Your task to perform on an android device: all mails in gmail Image 0: 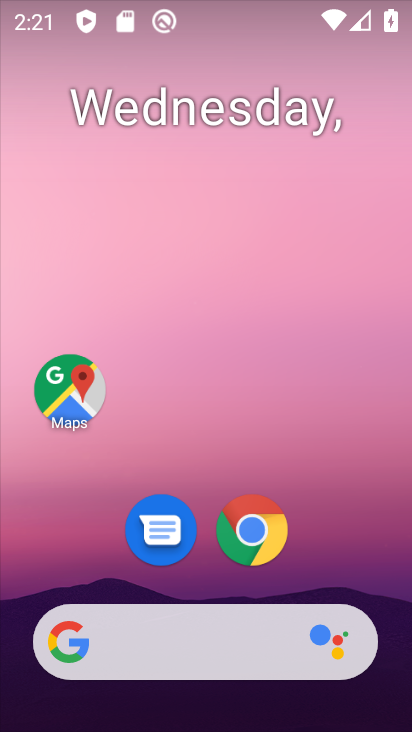
Step 0: drag from (178, 579) to (197, 41)
Your task to perform on an android device: all mails in gmail Image 1: 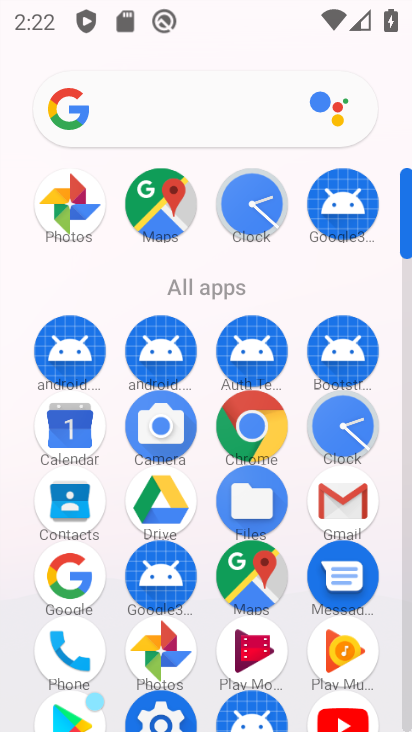
Step 1: click (333, 482)
Your task to perform on an android device: all mails in gmail Image 2: 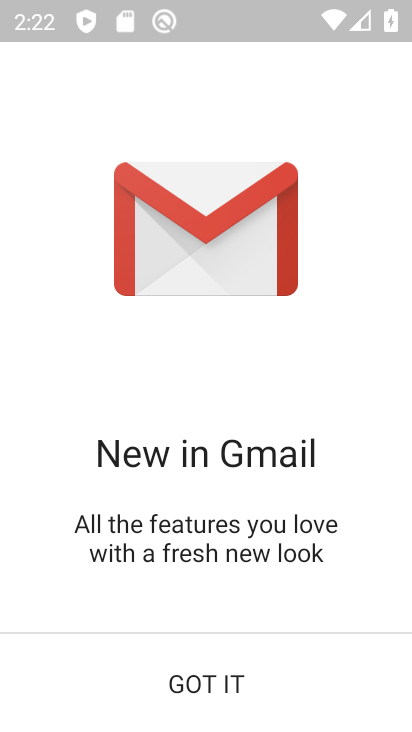
Step 2: click (138, 666)
Your task to perform on an android device: all mails in gmail Image 3: 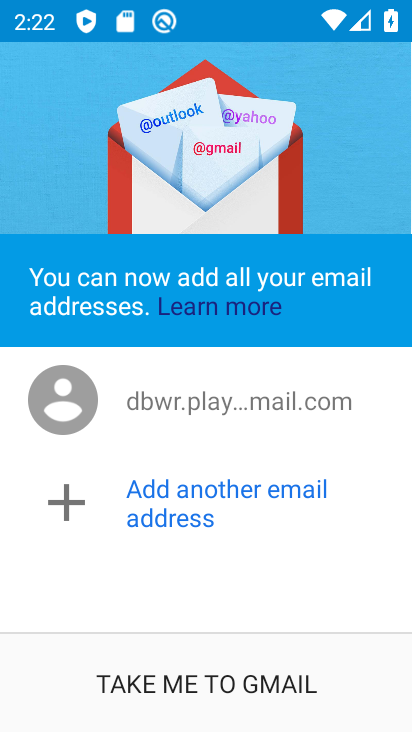
Step 3: click (138, 666)
Your task to perform on an android device: all mails in gmail Image 4: 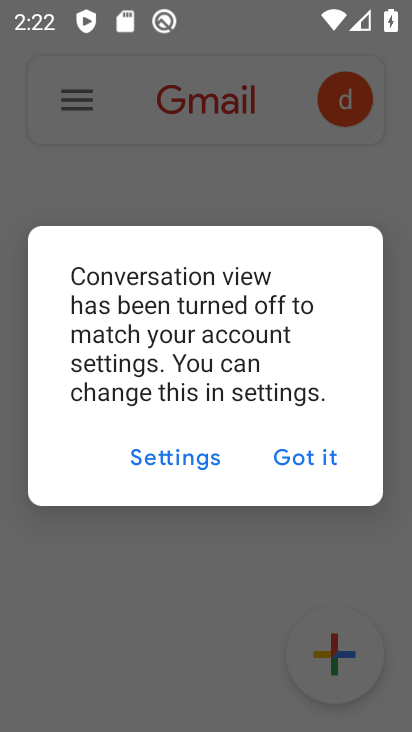
Step 4: click (308, 444)
Your task to perform on an android device: all mails in gmail Image 5: 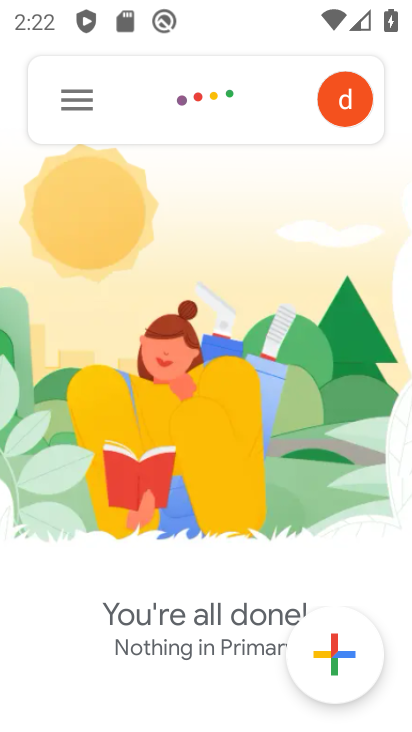
Step 5: click (72, 104)
Your task to perform on an android device: all mails in gmail Image 6: 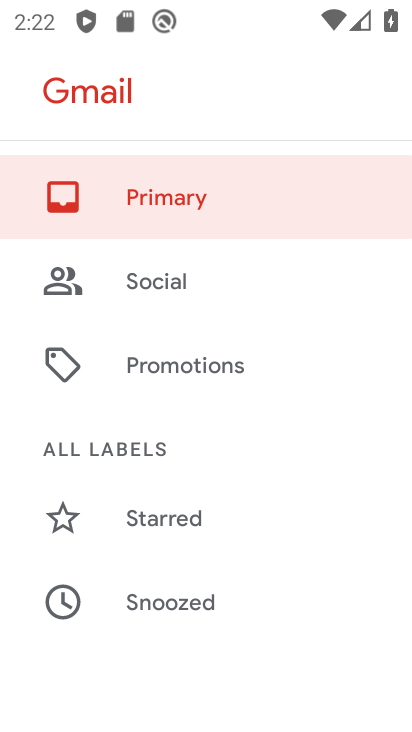
Step 6: drag from (140, 619) to (282, 117)
Your task to perform on an android device: all mails in gmail Image 7: 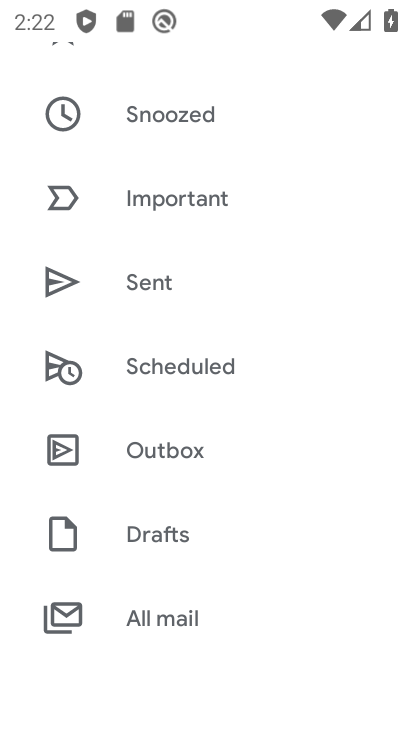
Step 7: click (148, 624)
Your task to perform on an android device: all mails in gmail Image 8: 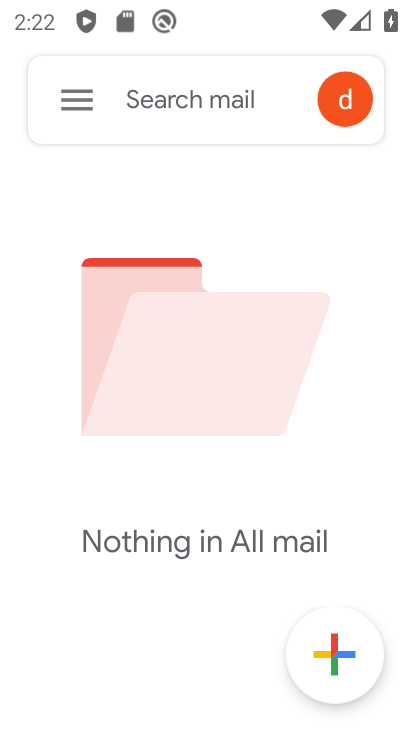
Step 8: task complete